Your task to perform on an android device: Open display settings Image 0: 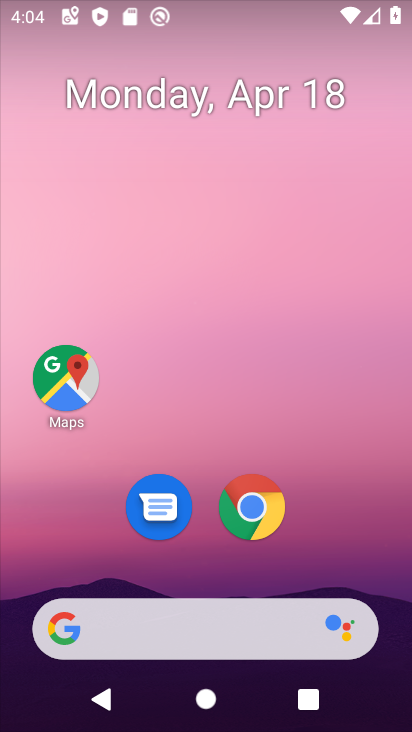
Step 0: drag from (261, 669) to (224, 114)
Your task to perform on an android device: Open display settings Image 1: 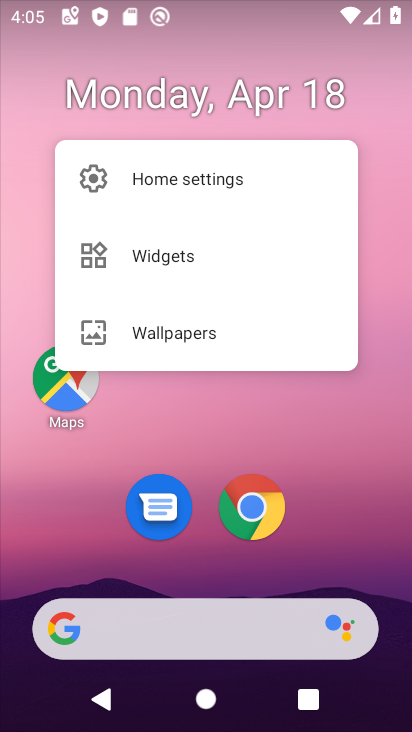
Step 1: click (202, 702)
Your task to perform on an android device: Open display settings Image 2: 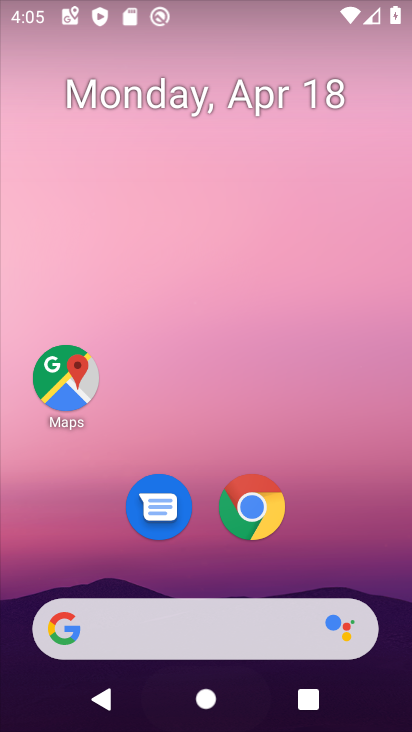
Step 2: drag from (203, 702) to (160, 10)
Your task to perform on an android device: Open display settings Image 3: 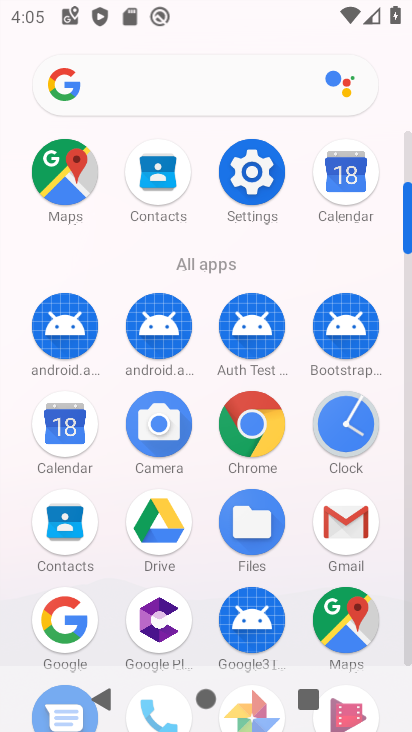
Step 3: click (245, 193)
Your task to perform on an android device: Open display settings Image 4: 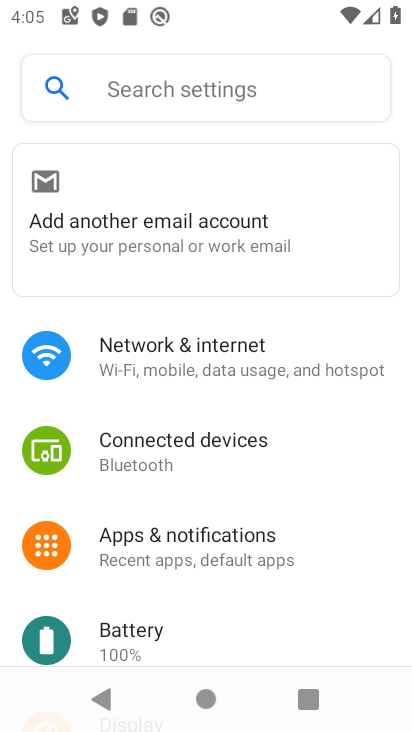
Step 4: drag from (289, 614) to (258, 90)
Your task to perform on an android device: Open display settings Image 5: 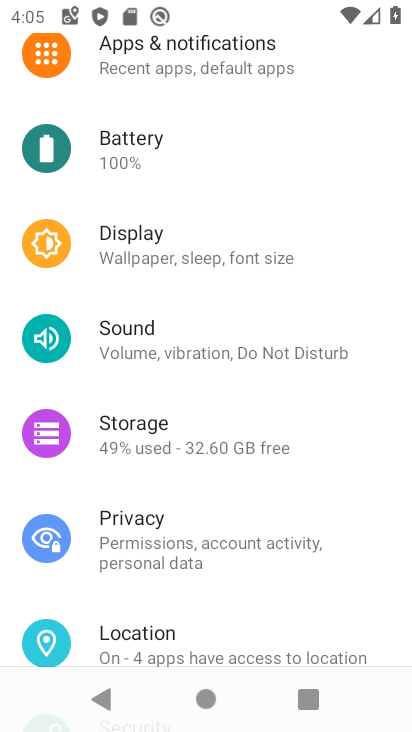
Step 5: click (264, 243)
Your task to perform on an android device: Open display settings Image 6: 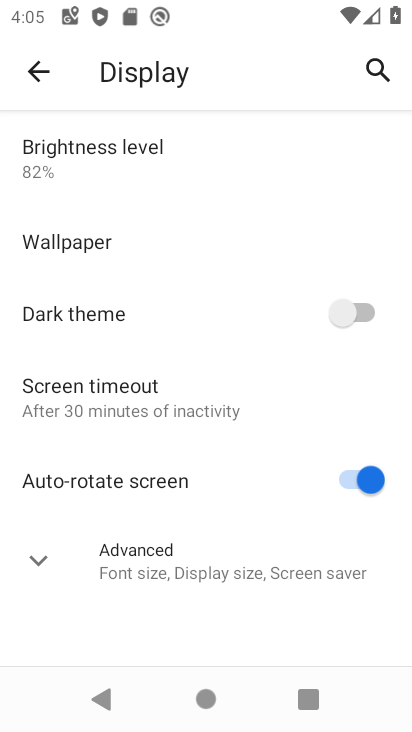
Step 6: task complete